Your task to perform on an android device: Open Google Chrome and click the shortcut for Amazon.com Image 0: 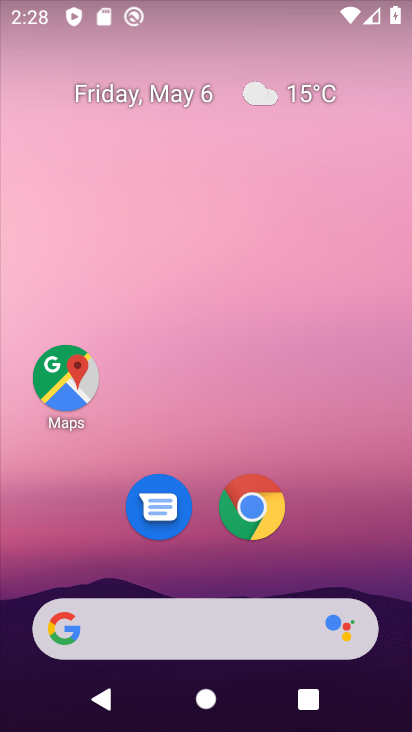
Step 0: drag from (316, 547) to (295, 51)
Your task to perform on an android device: Open Google Chrome and click the shortcut for Amazon.com Image 1: 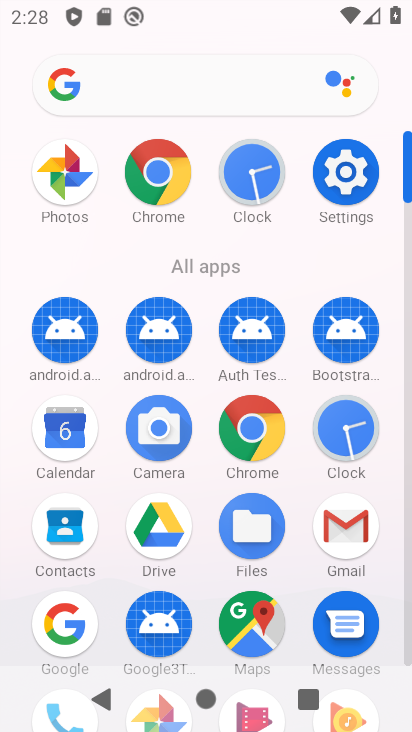
Step 1: click (249, 421)
Your task to perform on an android device: Open Google Chrome and click the shortcut for Amazon.com Image 2: 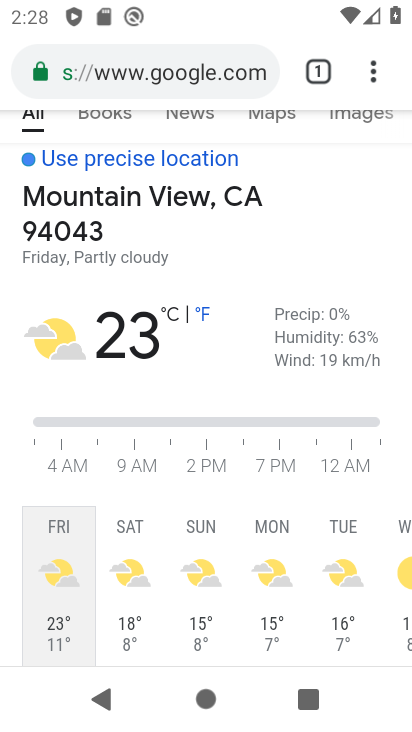
Step 2: drag from (250, 630) to (262, 307)
Your task to perform on an android device: Open Google Chrome and click the shortcut for Amazon.com Image 3: 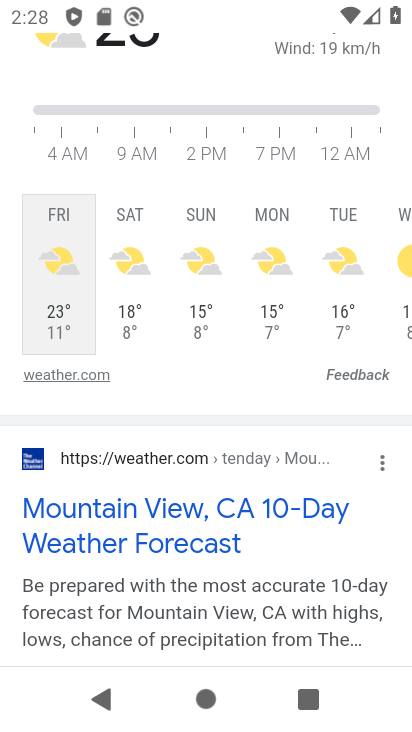
Step 3: drag from (222, 195) to (222, 500)
Your task to perform on an android device: Open Google Chrome and click the shortcut for Amazon.com Image 4: 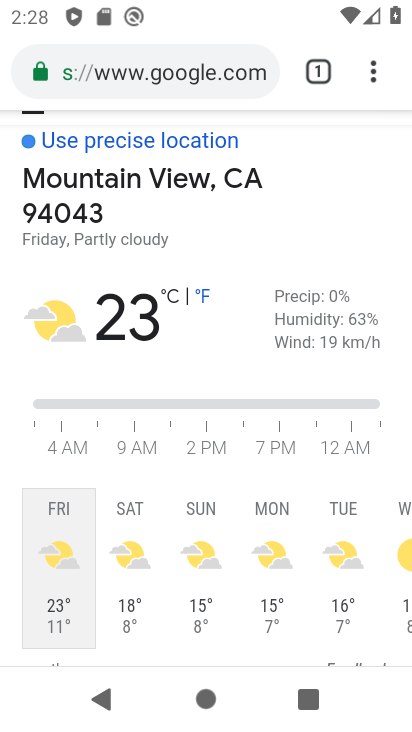
Step 4: drag from (243, 71) to (224, 376)
Your task to perform on an android device: Open Google Chrome and click the shortcut for Amazon.com Image 5: 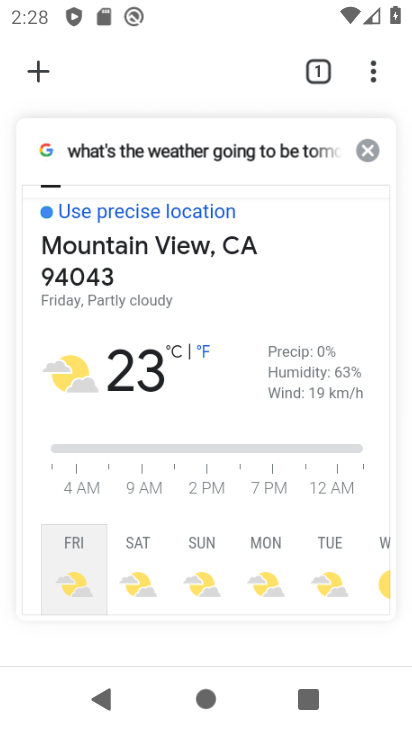
Step 5: click (314, 66)
Your task to perform on an android device: Open Google Chrome and click the shortcut for Amazon.com Image 6: 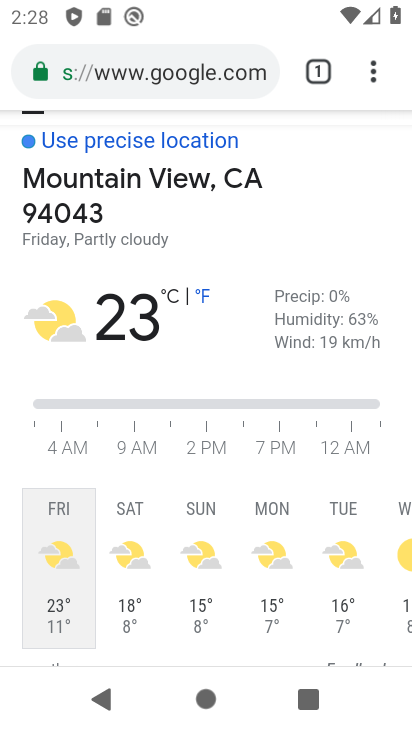
Step 6: click (299, 65)
Your task to perform on an android device: Open Google Chrome and click the shortcut for Amazon.com Image 7: 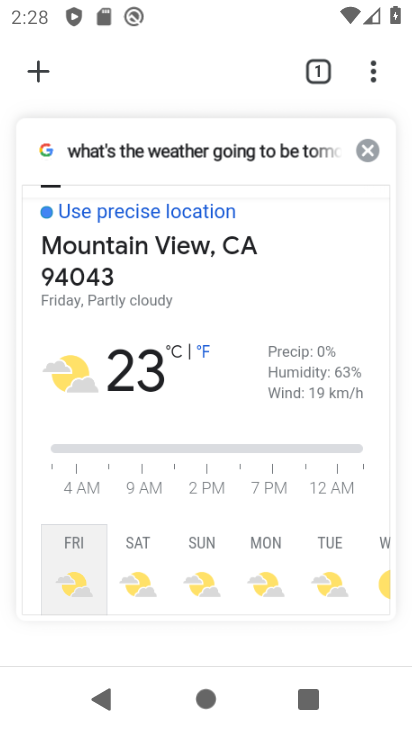
Step 7: click (41, 68)
Your task to perform on an android device: Open Google Chrome and click the shortcut for Amazon.com Image 8: 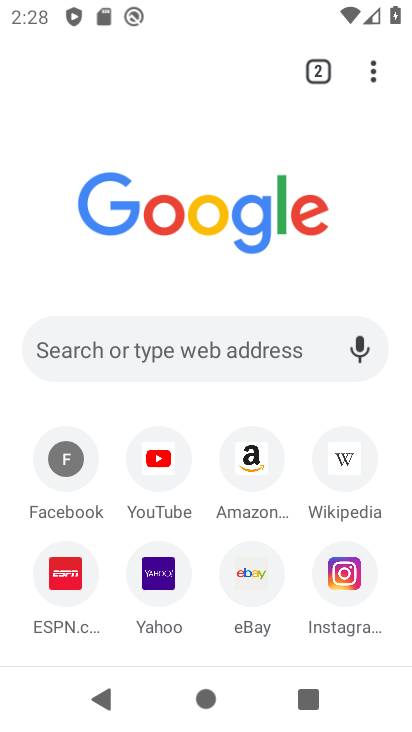
Step 8: click (264, 462)
Your task to perform on an android device: Open Google Chrome and click the shortcut for Amazon.com Image 9: 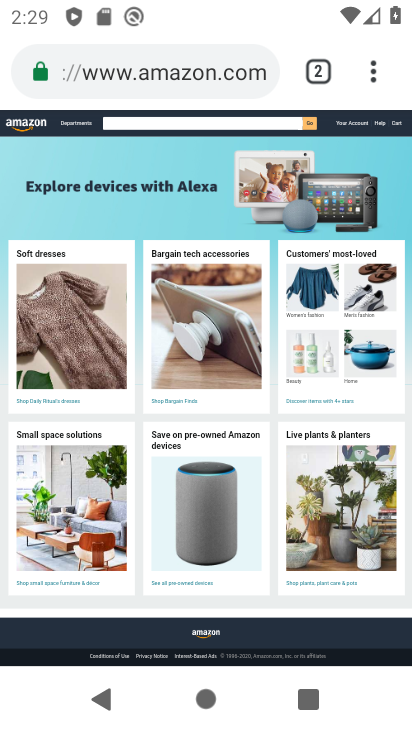
Step 9: task complete